Your task to perform on an android device: turn on showing notifications on the lock screen Image 0: 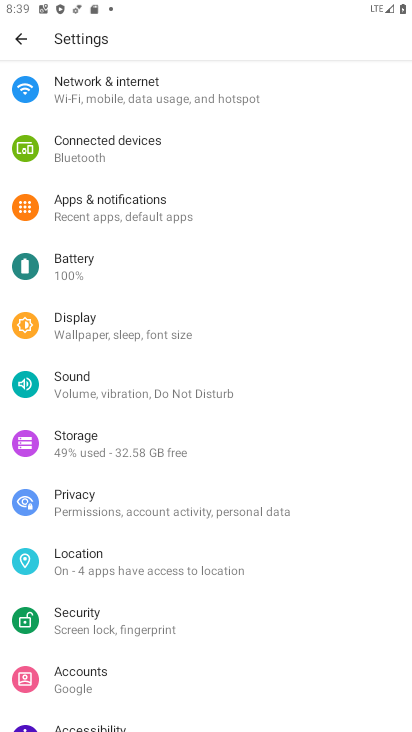
Step 0: click (180, 216)
Your task to perform on an android device: turn on showing notifications on the lock screen Image 1: 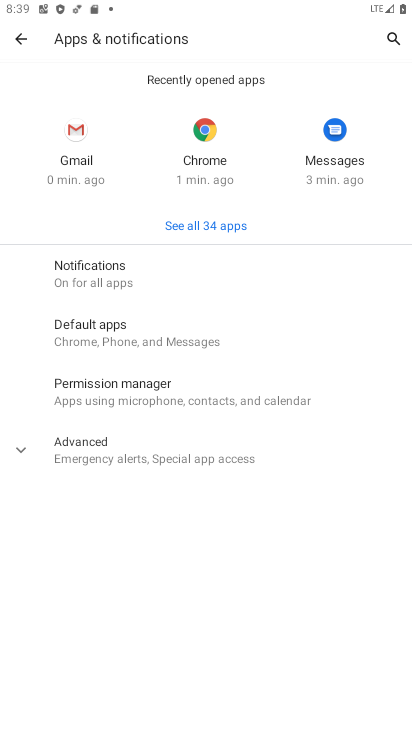
Step 1: click (179, 280)
Your task to perform on an android device: turn on showing notifications on the lock screen Image 2: 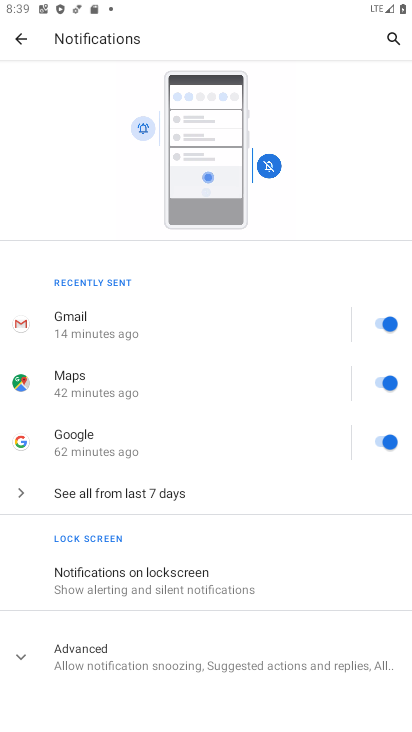
Step 2: click (182, 586)
Your task to perform on an android device: turn on showing notifications on the lock screen Image 3: 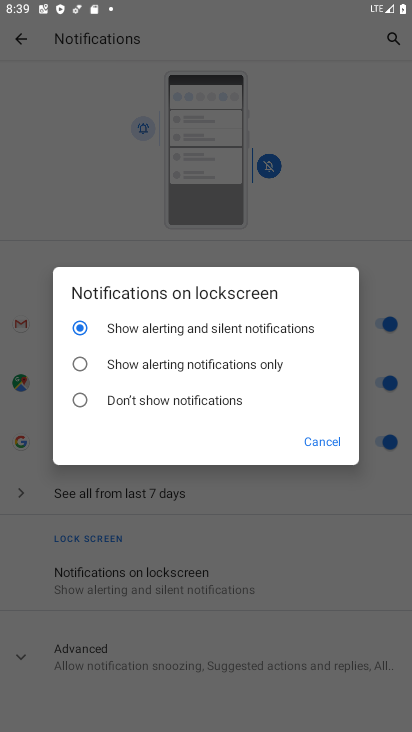
Step 3: task complete